Your task to perform on an android device: show emergency info Image 0: 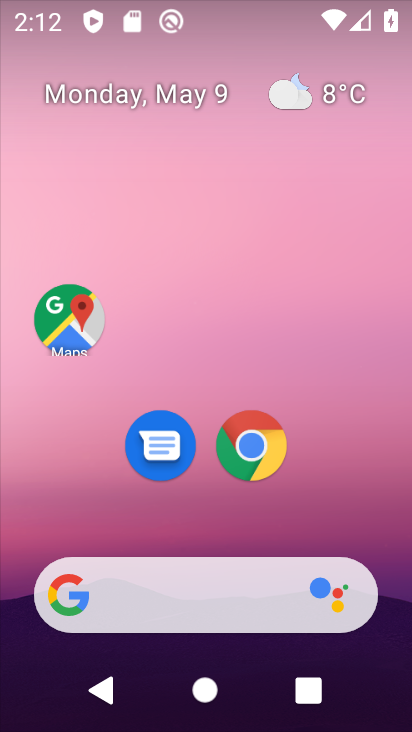
Step 0: drag from (337, 517) to (323, 15)
Your task to perform on an android device: show emergency info Image 1: 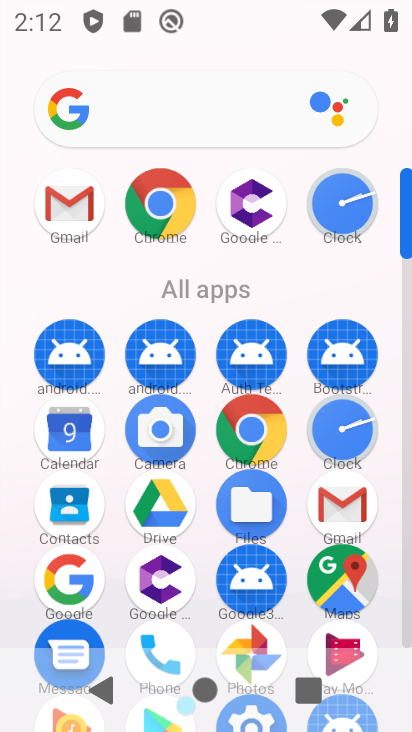
Step 1: click (405, 642)
Your task to perform on an android device: show emergency info Image 2: 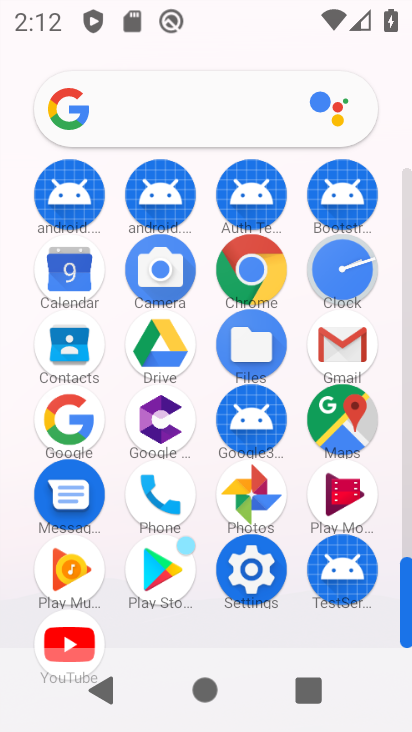
Step 2: click (264, 568)
Your task to perform on an android device: show emergency info Image 3: 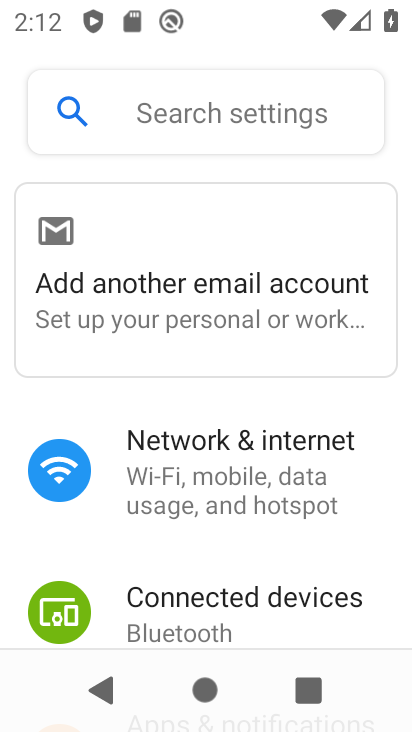
Step 3: drag from (263, 636) to (242, 204)
Your task to perform on an android device: show emergency info Image 4: 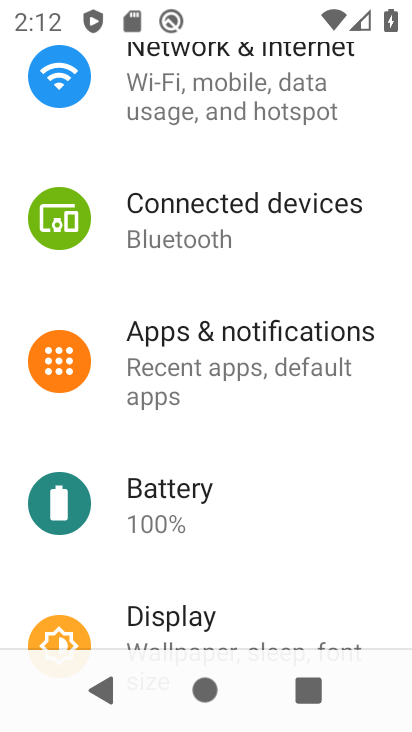
Step 4: drag from (252, 550) to (237, 230)
Your task to perform on an android device: show emergency info Image 5: 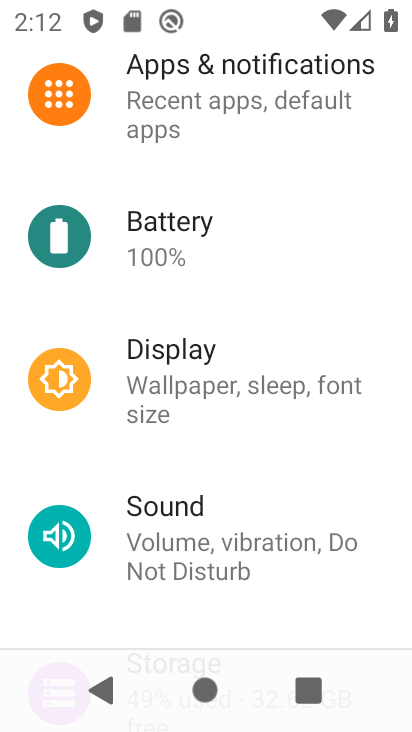
Step 5: drag from (229, 484) to (229, 388)
Your task to perform on an android device: show emergency info Image 6: 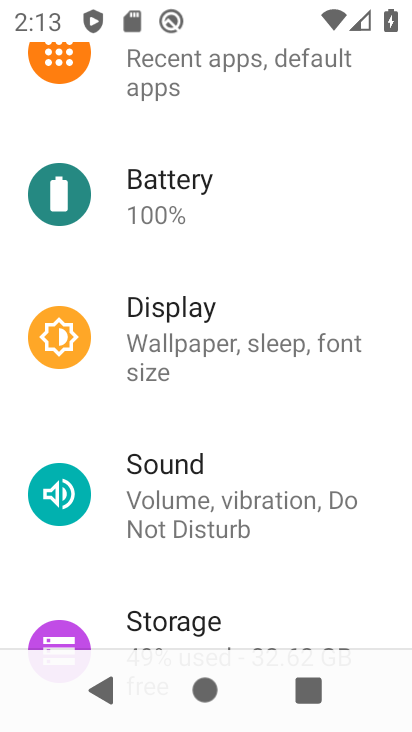
Step 6: drag from (295, 543) to (301, 315)
Your task to perform on an android device: show emergency info Image 7: 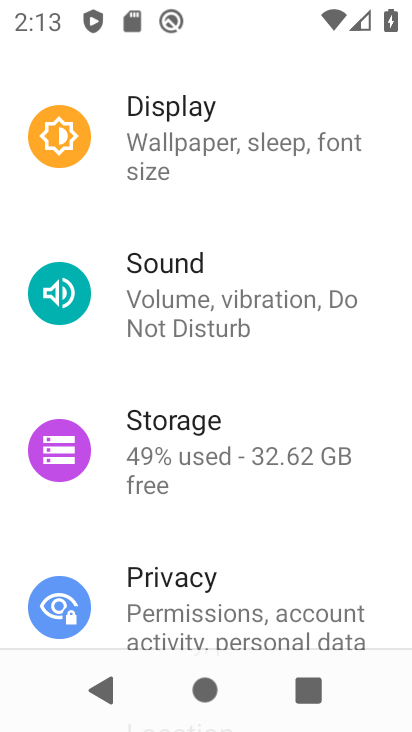
Step 7: drag from (274, 567) to (269, 355)
Your task to perform on an android device: show emergency info Image 8: 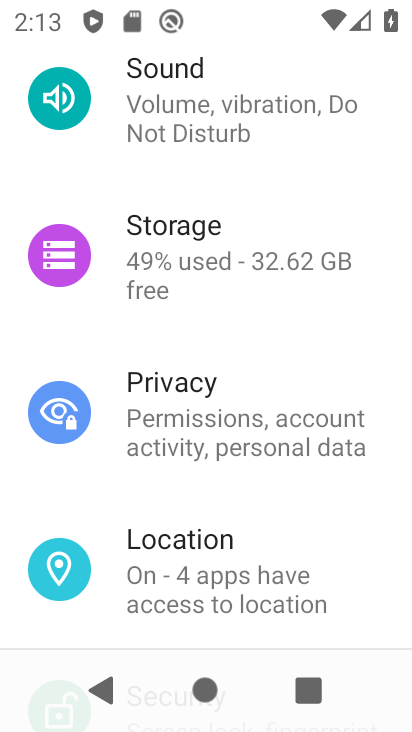
Step 8: drag from (262, 530) to (256, 303)
Your task to perform on an android device: show emergency info Image 9: 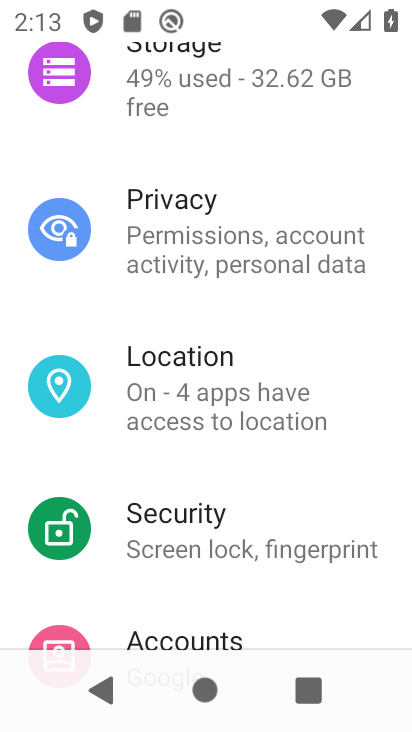
Step 9: drag from (218, 498) to (213, 258)
Your task to perform on an android device: show emergency info Image 10: 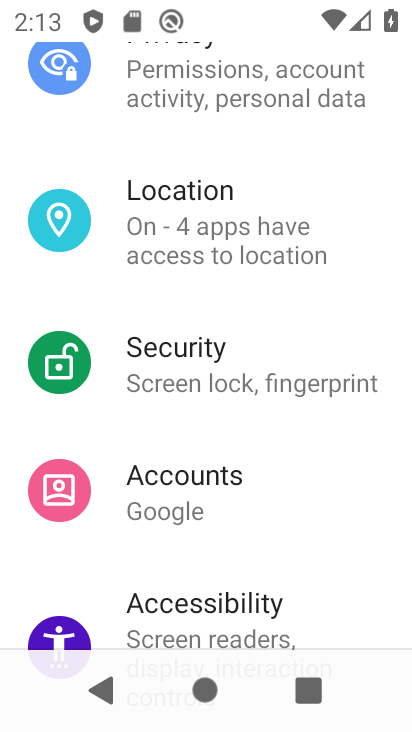
Step 10: drag from (263, 519) to (260, 361)
Your task to perform on an android device: show emergency info Image 11: 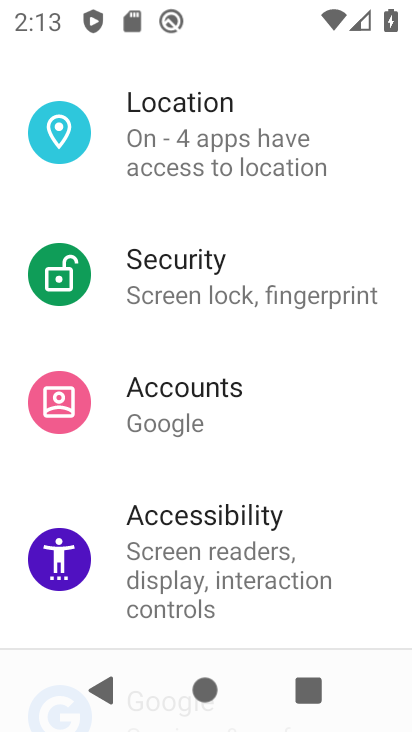
Step 11: drag from (256, 523) to (244, 277)
Your task to perform on an android device: show emergency info Image 12: 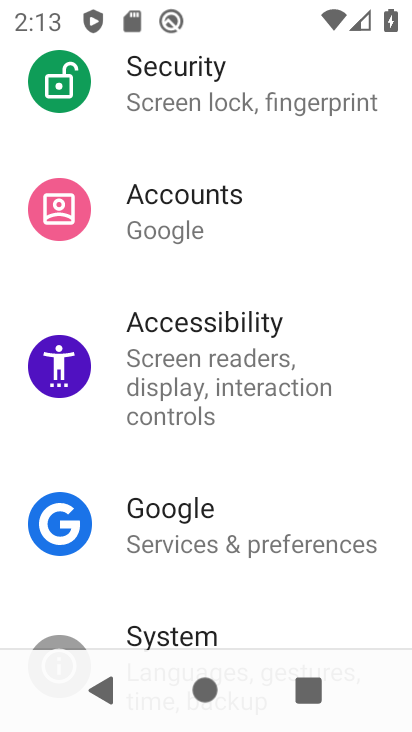
Step 12: drag from (247, 528) to (239, 367)
Your task to perform on an android device: show emergency info Image 13: 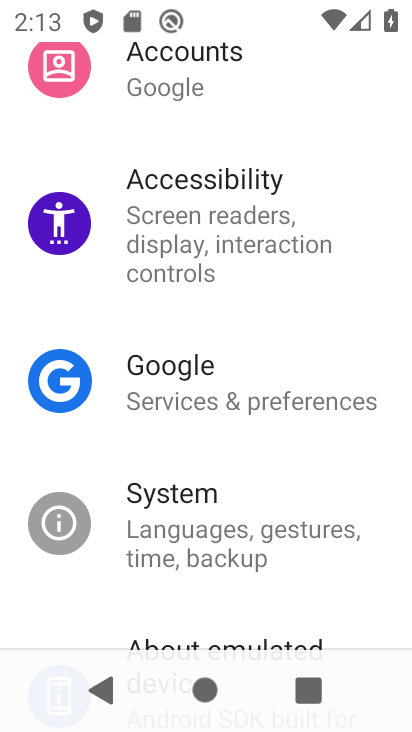
Step 13: drag from (252, 571) to (241, 342)
Your task to perform on an android device: show emergency info Image 14: 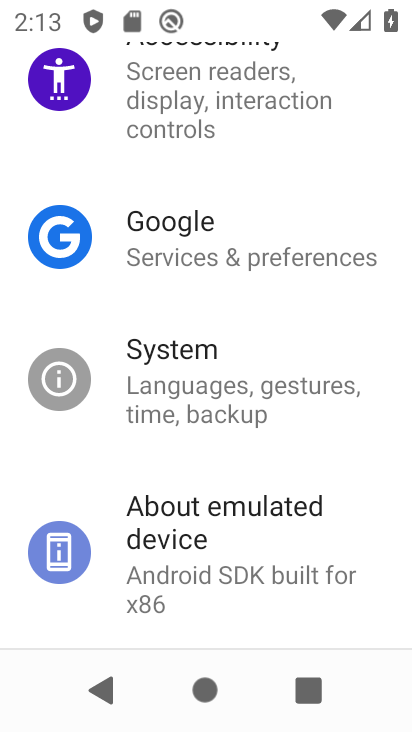
Step 14: drag from (231, 492) to (227, 326)
Your task to perform on an android device: show emergency info Image 15: 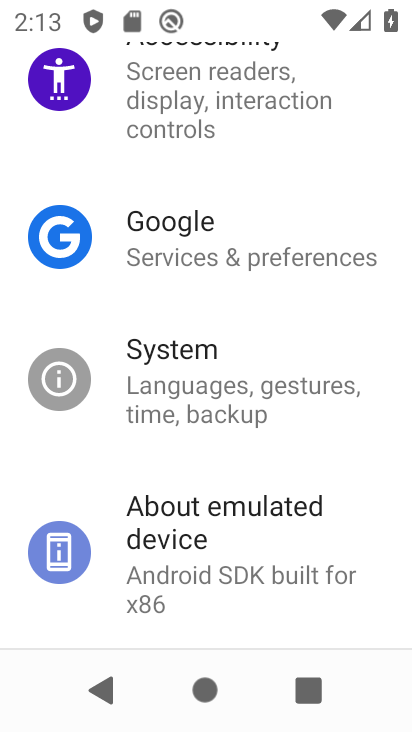
Step 15: drag from (236, 404) to (230, 248)
Your task to perform on an android device: show emergency info Image 16: 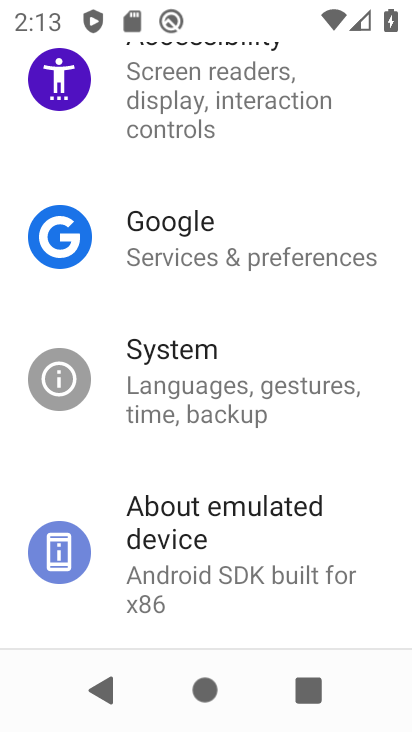
Step 16: click (234, 516)
Your task to perform on an android device: show emergency info Image 17: 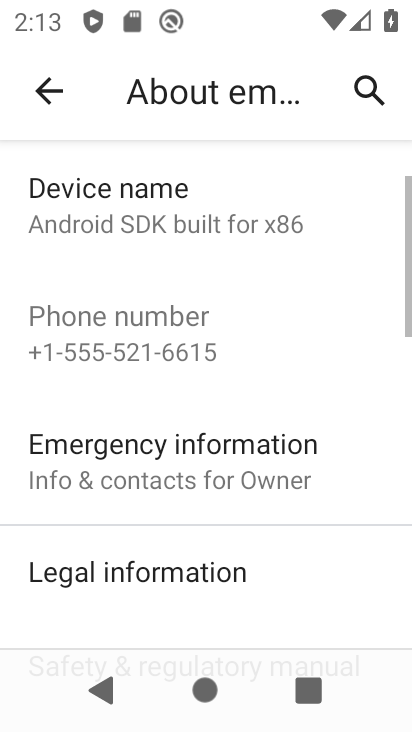
Step 17: click (220, 456)
Your task to perform on an android device: show emergency info Image 18: 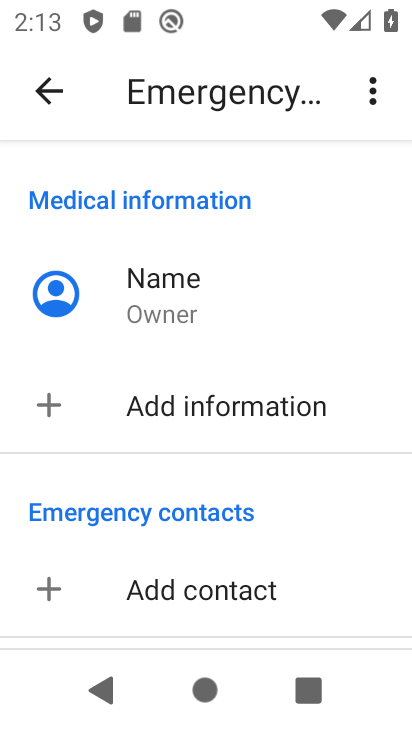
Step 18: task complete